Your task to perform on an android device: turn pop-ups off in chrome Image 0: 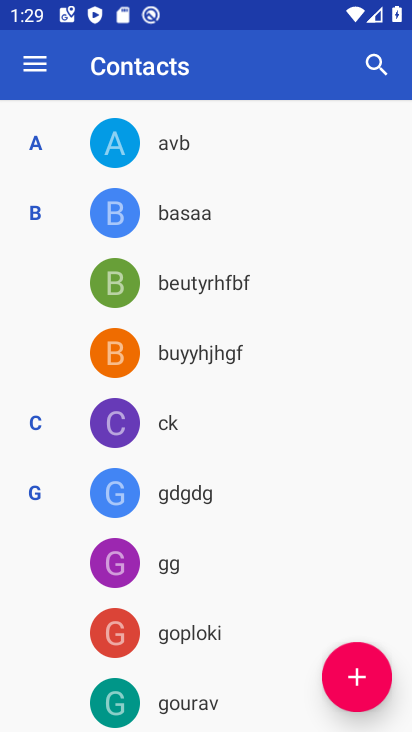
Step 0: press home button
Your task to perform on an android device: turn pop-ups off in chrome Image 1: 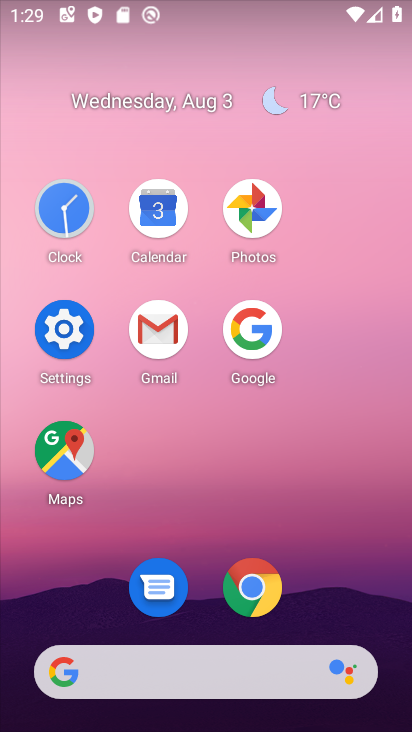
Step 1: click (245, 579)
Your task to perform on an android device: turn pop-ups off in chrome Image 2: 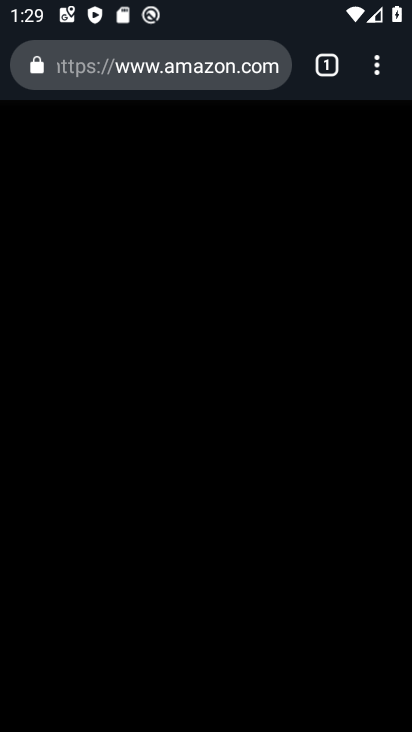
Step 2: click (392, 66)
Your task to perform on an android device: turn pop-ups off in chrome Image 3: 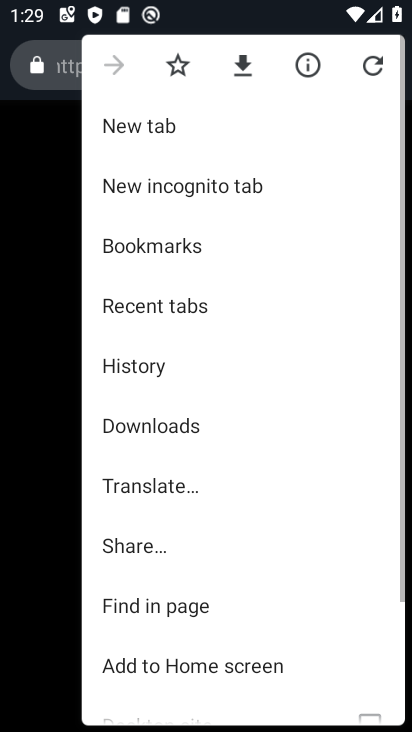
Step 3: drag from (215, 593) to (235, 218)
Your task to perform on an android device: turn pop-ups off in chrome Image 4: 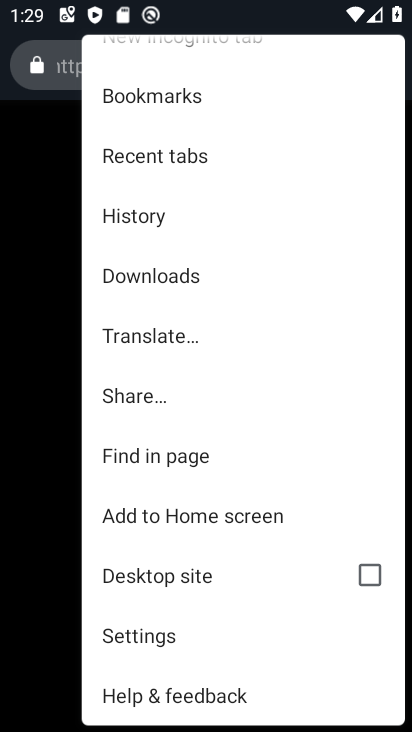
Step 4: click (165, 631)
Your task to perform on an android device: turn pop-ups off in chrome Image 5: 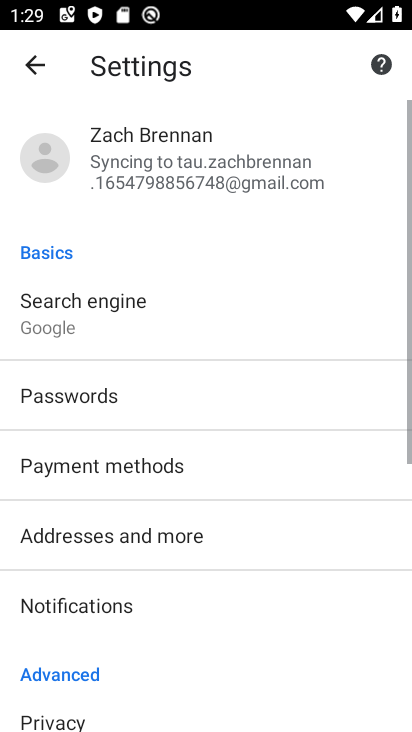
Step 5: drag from (165, 631) to (192, 250)
Your task to perform on an android device: turn pop-ups off in chrome Image 6: 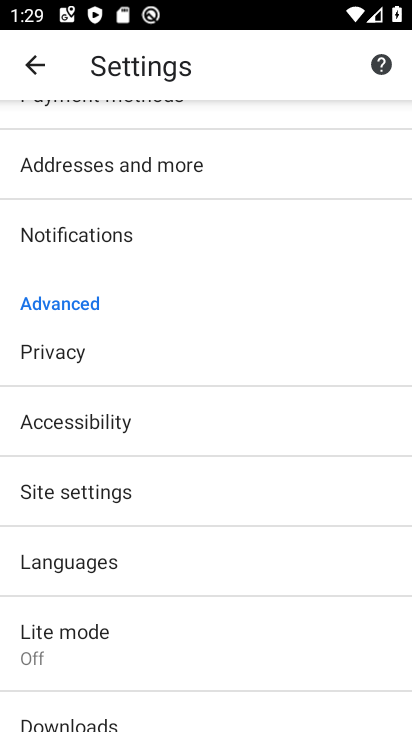
Step 6: drag from (135, 490) to (128, 257)
Your task to perform on an android device: turn pop-ups off in chrome Image 7: 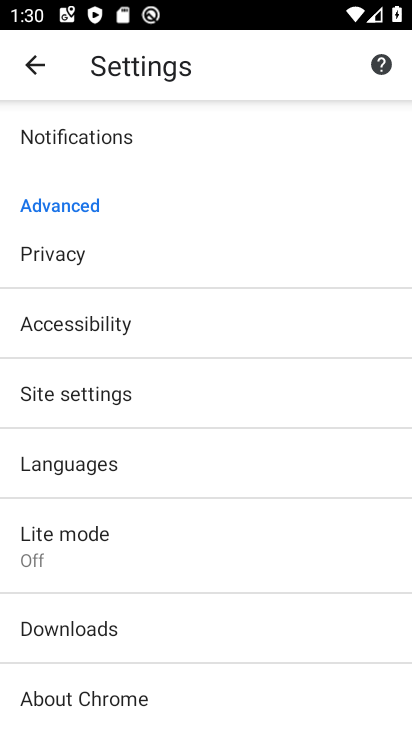
Step 7: click (170, 391)
Your task to perform on an android device: turn pop-ups off in chrome Image 8: 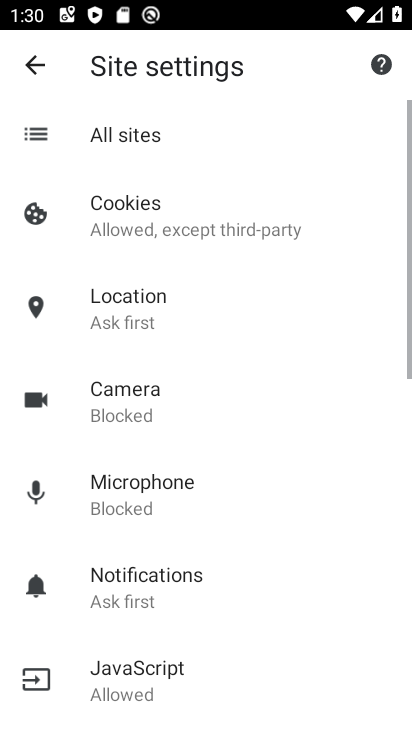
Step 8: drag from (209, 546) to (200, 270)
Your task to perform on an android device: turn pop-ups off in chrome Image 9: 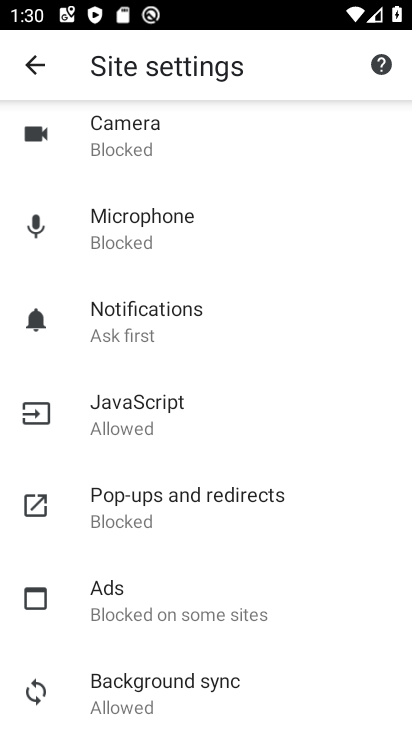
Step 9: click (281, 491)
Your task to perform on an android device: turn pop-ups off in chrome Image 10: 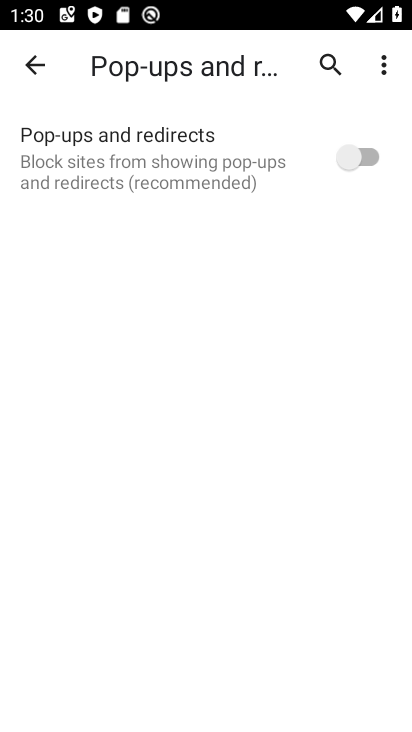
Step 10: task complete